Your task to perform on an android device: What's on my calendar today? Image 0: 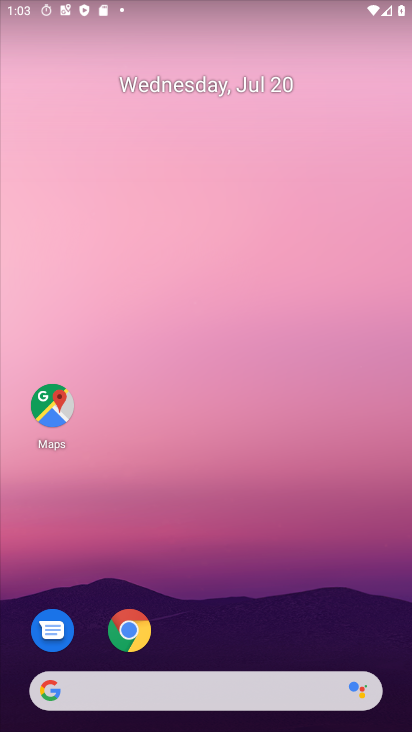
Step 0: drag from (258, 603) to (291, 248)
Your task to perform on an android device: What's on my calendar today? Image 1: 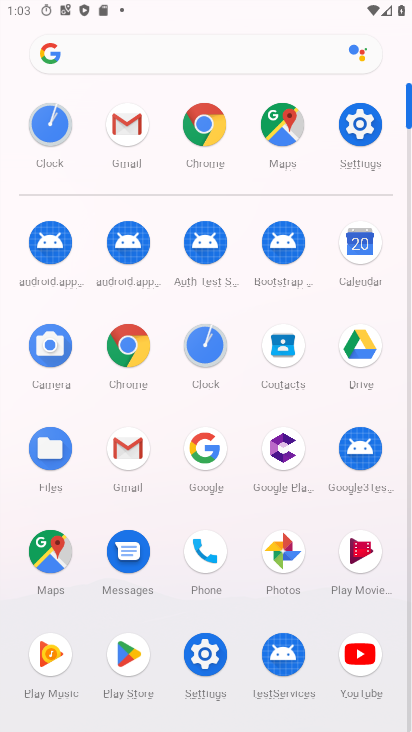
Step 1: click (362, 239)
Your task to perform on an android device: What's on my calendar today? Image 2: 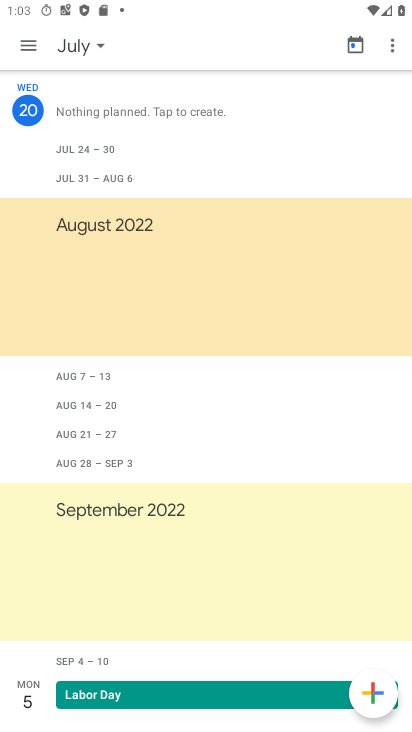
Step 2: click (76, 35)
Your task to perform on an android device: What's on my calendar today? Image 3: 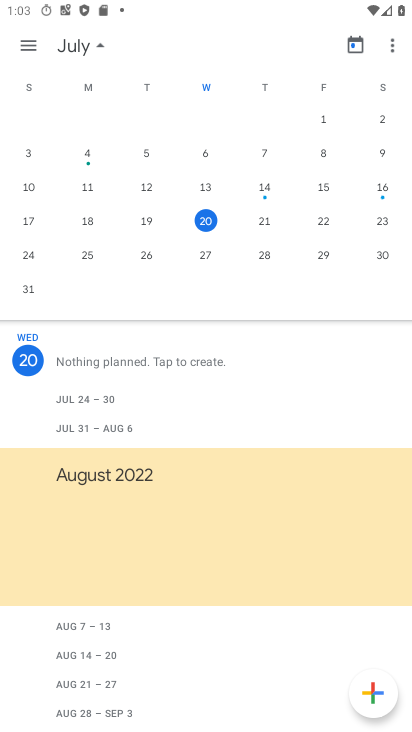
Step 3: click (205, 217)
Your task to perform on an android device: What's on my calendar today? Image 4: 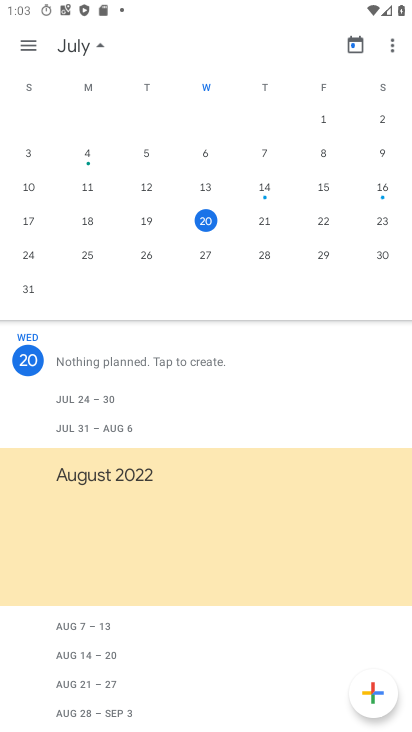
Step 4: task complete